Your task to perform on an android device: change the clock display to show seconds Image 0: 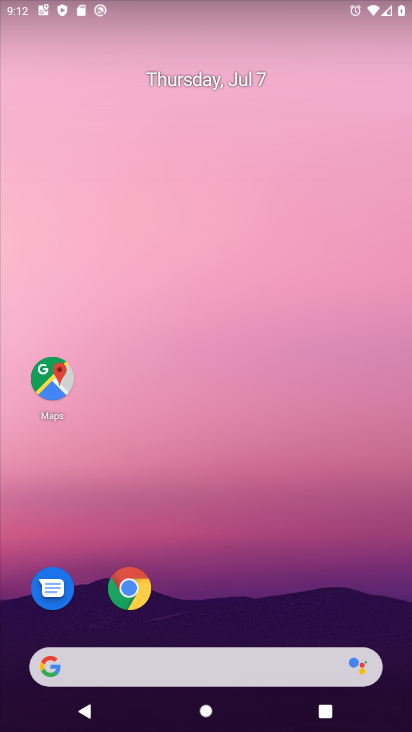
Step 0: drag from (216, 625) to (244, 46)
Your task to perform on an android device: change the clock display to show seconds Image 1: 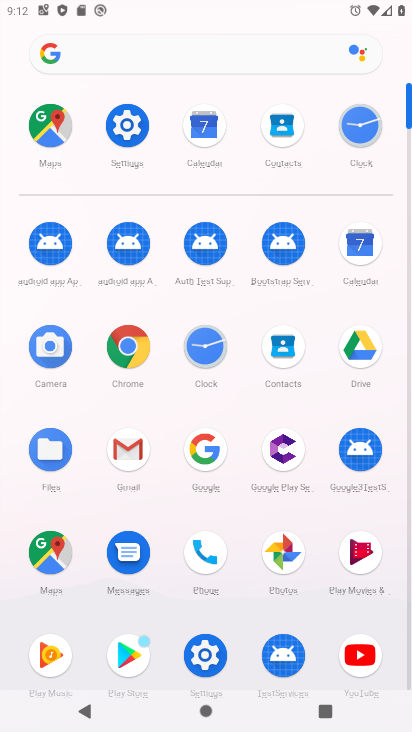
Step 1: click (126, 121)
Your task to perform on an android device: change the clock display to show seconds Image 2: 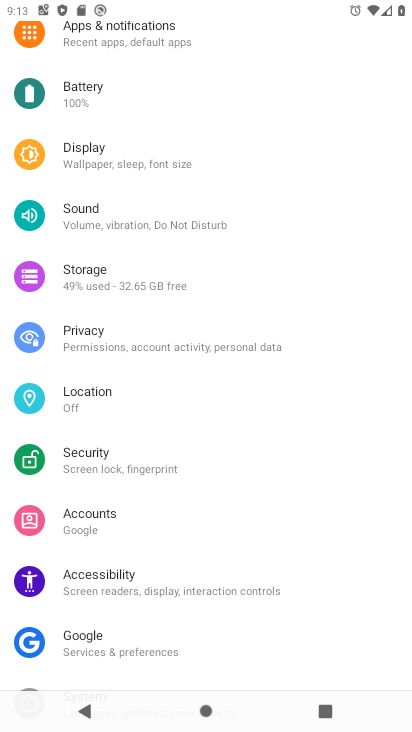
Step 2: press home button
Your task to perform on an android device: change the clock display to show seconds Image 3: 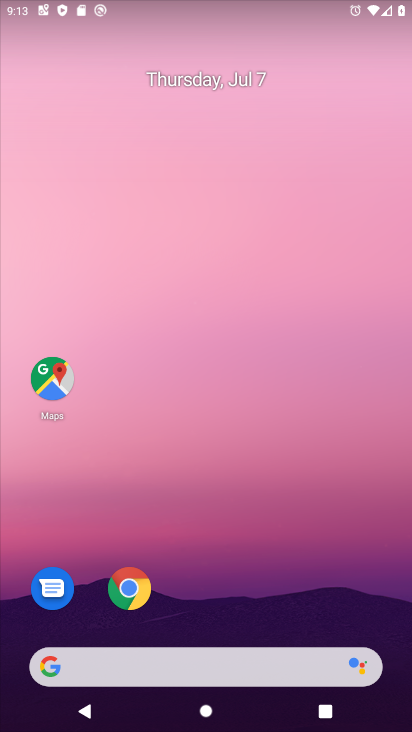
Step 3: drag from (255, 597) to (244, 35)
Your task to perform on an android device: change the clock display to show seconds Image 4: 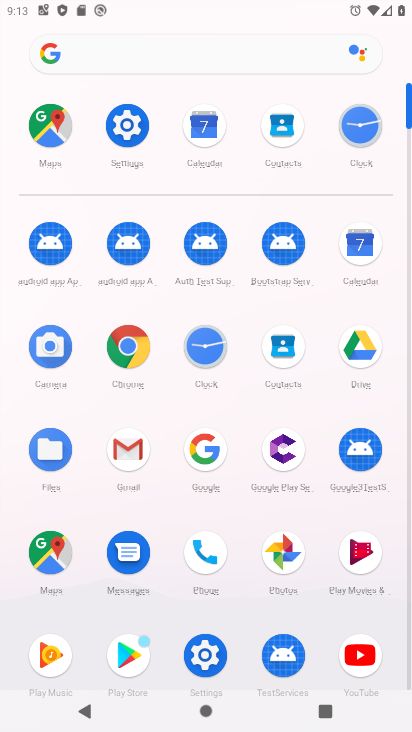
Step 4: click (203, 340)
Your task to perform on an android device: change the clock display to show seconds Image 5: 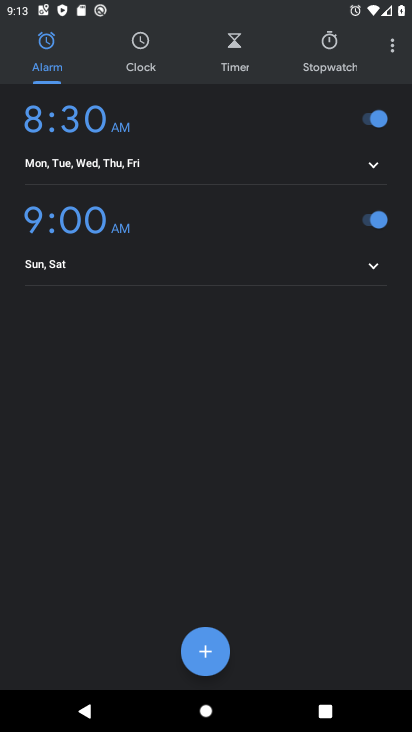
Step 5: click (384, 48)
Your task to perform on an android device: change the clock display to show seconds Image 6: 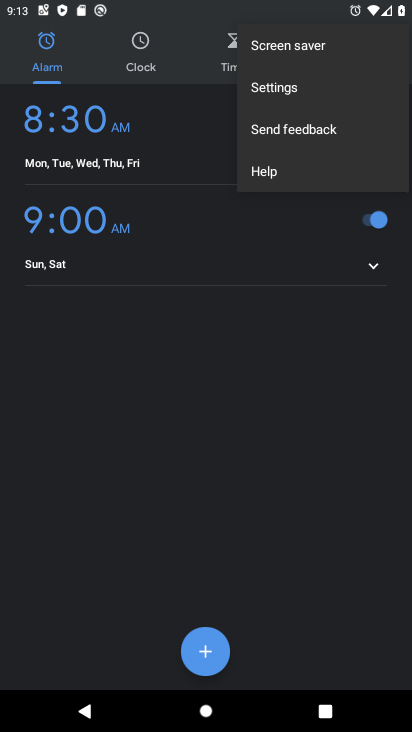
Step 6: click (287, 93)
Your task to perform on an android device: change the clock display to show seconds Image 7: 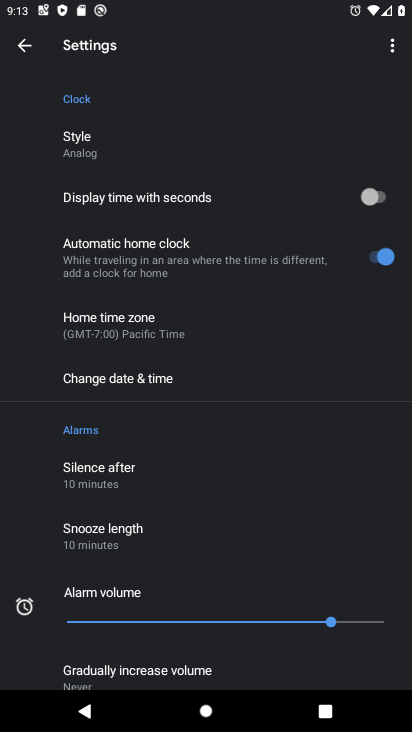
Step 7: click (371, 190)
Your task to perform on an android device: change the clock display to show seconds Image 8: 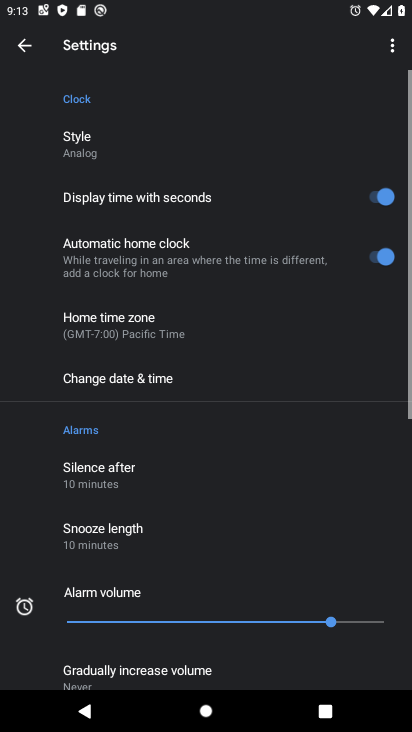
Step 8: task complete